Your task to perform on an android device: What's the weather? Image 0: 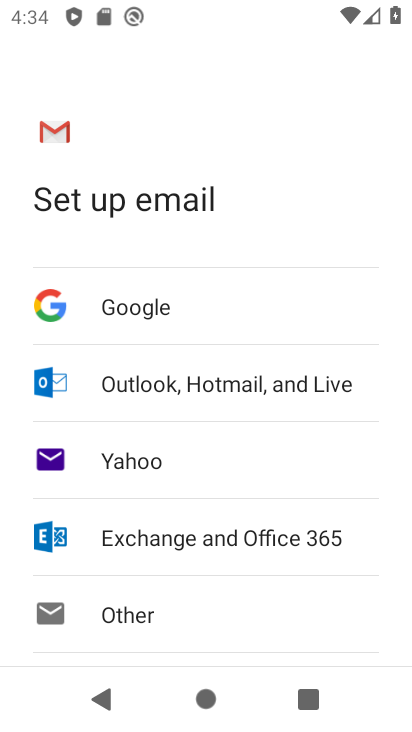
Step 0: press home button
Your task to perform on an android device: What's the weather? Image 1: 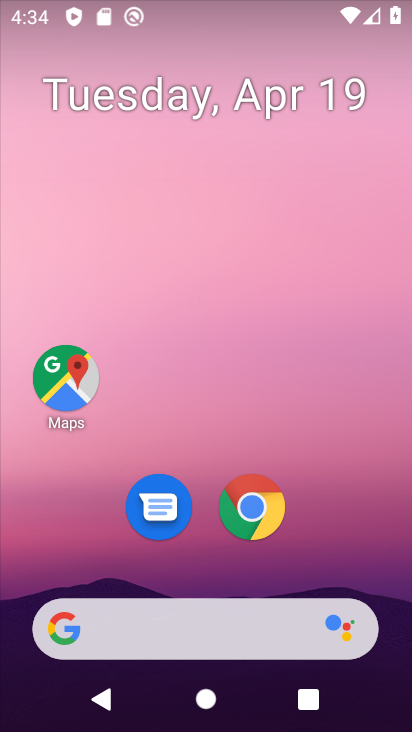
Step 1: drag from (272, 541) to (272, 142)
Your task to perform on an android device: What's the weather? Image 2: 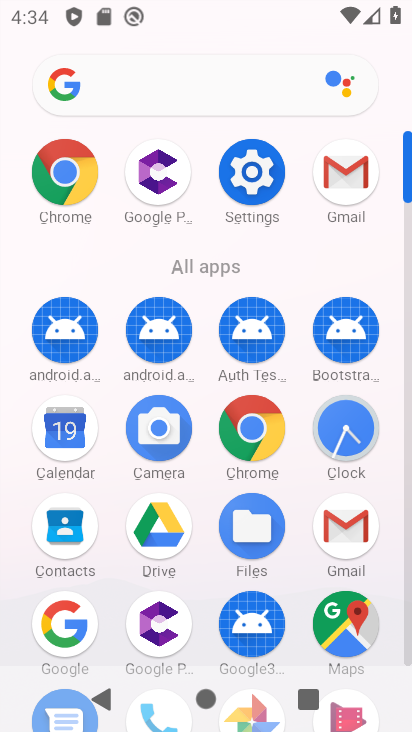
Step 2: click (264, 418)
Your task to perform on an android device: What's the weather? Image 3: 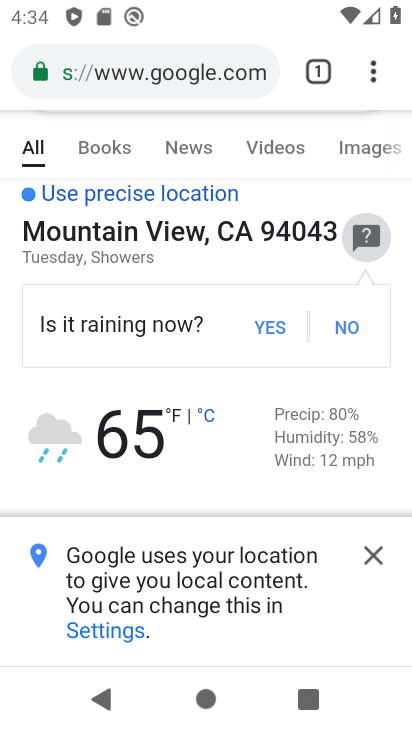
Step 3: task complete